Your task to perform on an android device: change alarm snooze length Image 0: 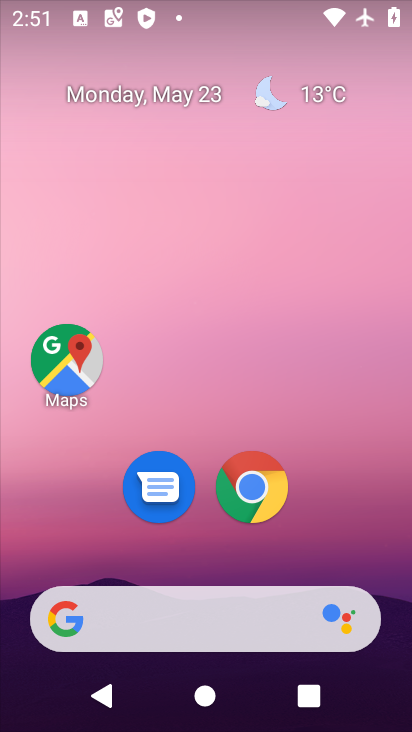
Step 0: drag from (389, 613) to (333, 9)
Your task to perform on an android device: change alarm snooze length Image 1: 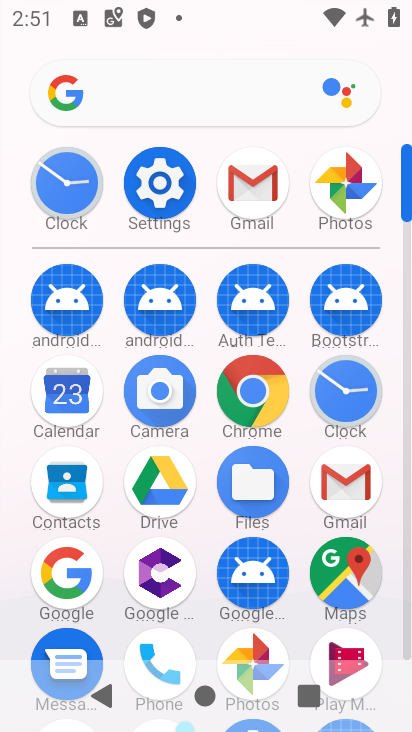
Step 1: click (409, 643)
Your task to perform on an android device: change alarm snooze length Image 2: 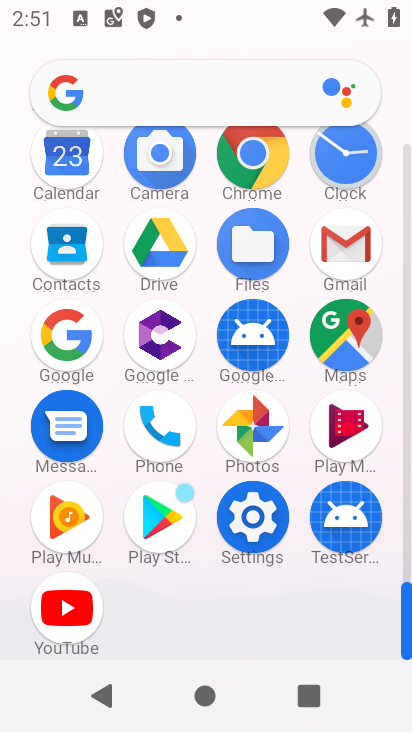
Step 2: click (343, 155)
Your task to perform on an android device: change alarm snooze length Image 3: 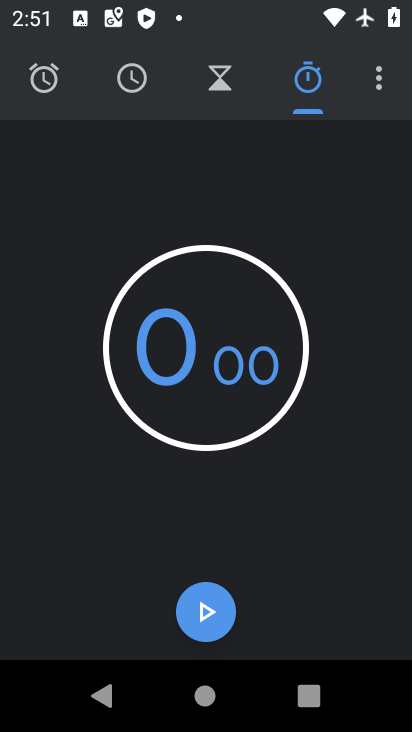
Step 3: click (375, 83)
Your task to perform on an android device: change alarm snooze length Image 4: 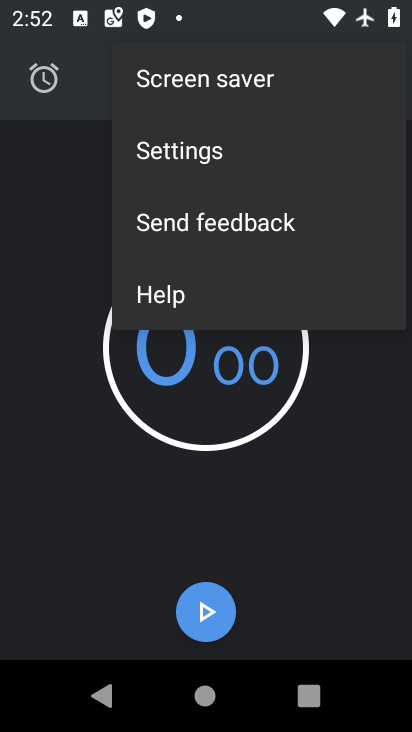
Step 4: click (208, 149)
Your task to perform on an android device: change alarm snooze length Image 5: 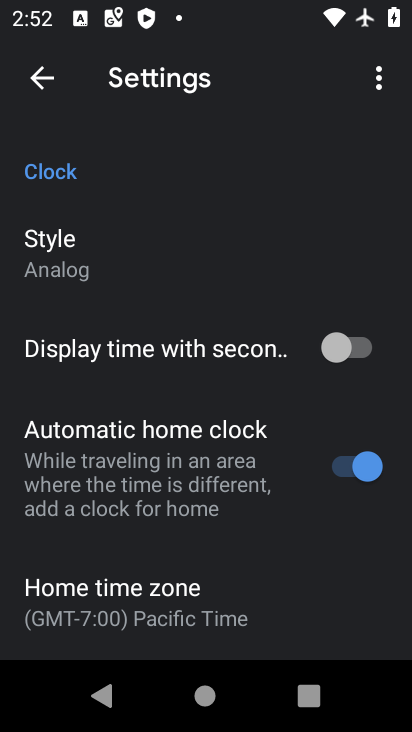
Step 5: drag from (254, 582) to (201, 160)
Your task to perform on an android device: change alarm snooze length Image 6: 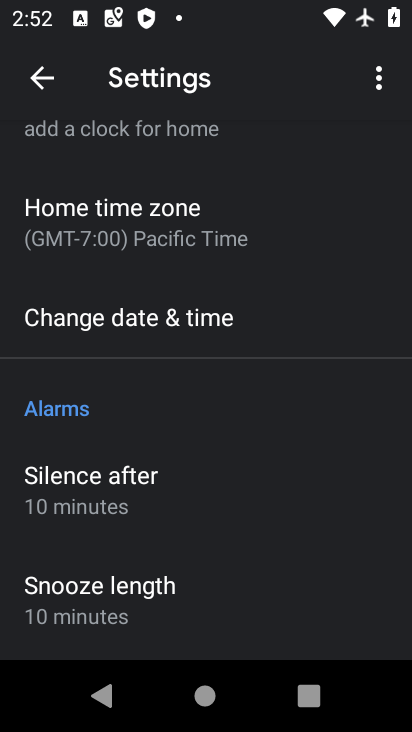
Step 6: click (93, 595)
Your task to perform on an android device: change alarm snooze length Image 7: 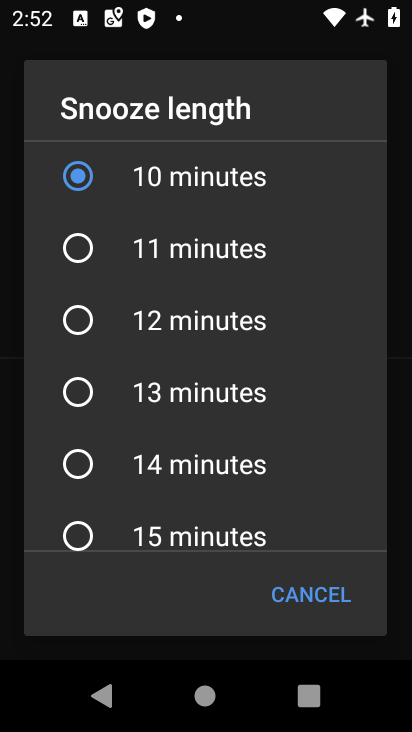
Step 7: click (81, 530)
Your task to perform on an android device: change alarm snooze length Image 8: 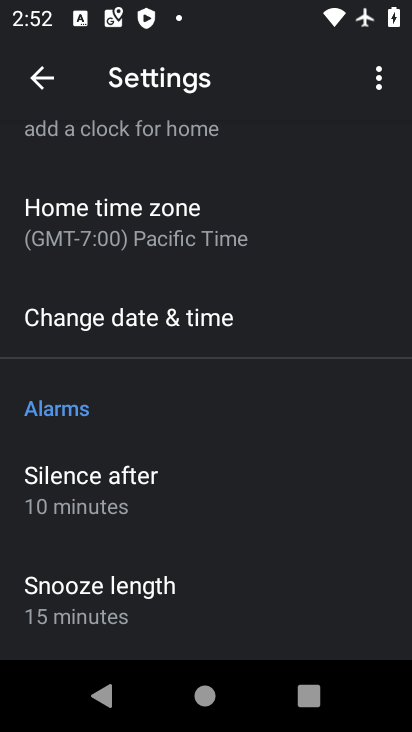
Step 8: task complete